Your task to perform on an android device: Open Google Chrome Image 0: 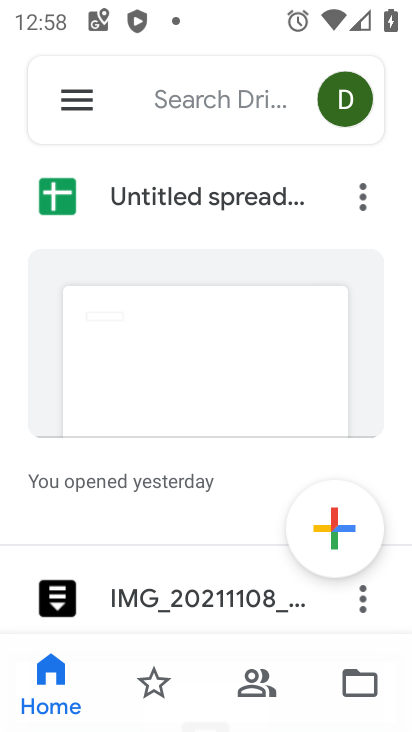
Step 0: press home button
Your task to perform on an android device: Open Google Chrome Image 1: 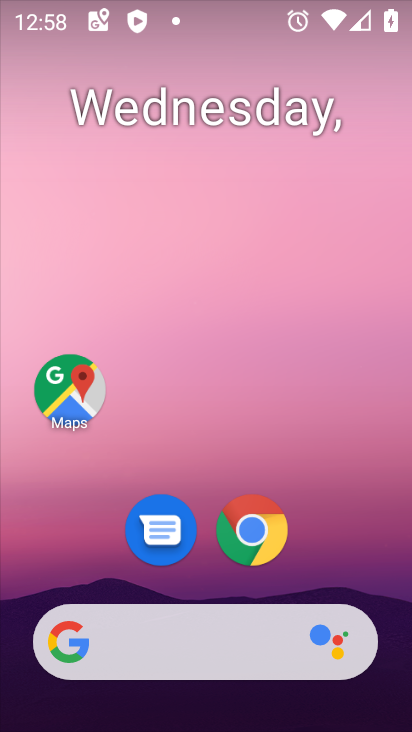
Step 1: click (248, 526)
Your task to perform on an android device: Open Google Chrome Image 2: 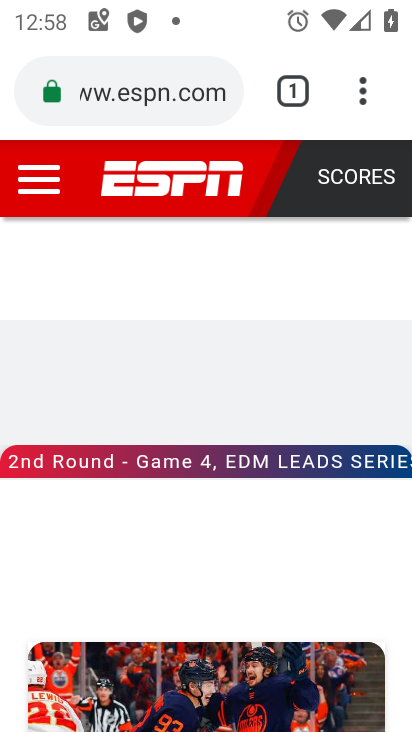
Step 2: task complete